Your task to perform on an android device: Open wifi settings Image 0: 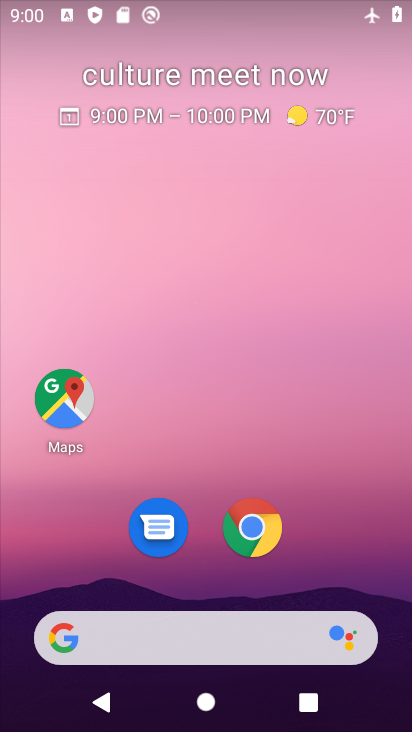
Step 0: drag from (209, 647) to (252, 333)
Your task to perform on an android device: Open wifi settings Image 1: 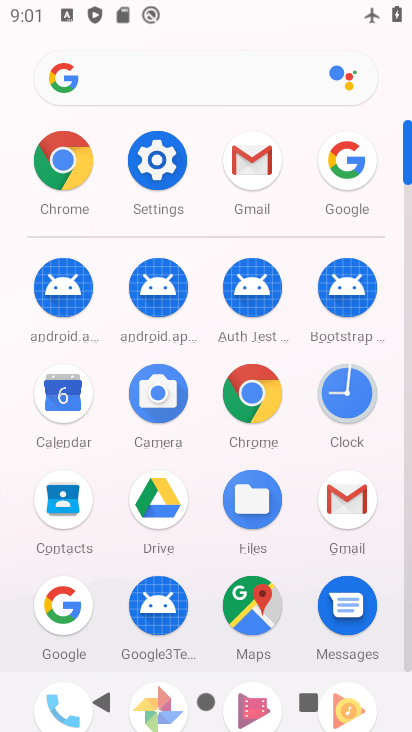
Step 1: click (163, 196)
Your task to perform on an android device: Open wifi settings Image 2: 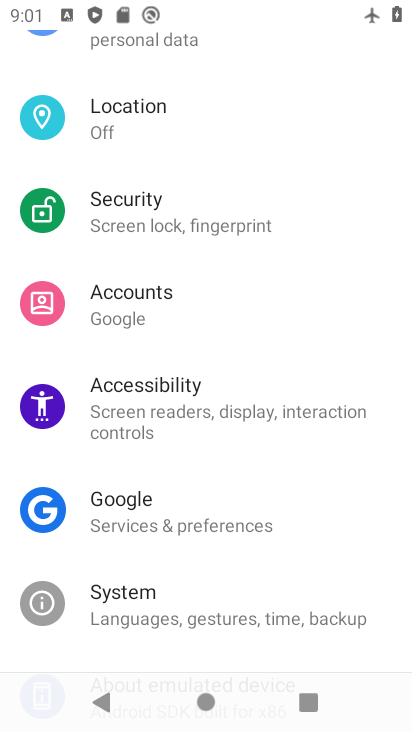
Step 2: drag from (168, 233) to (196, 622)
Your task to perform on an android device: Open wifi settings Image 3: 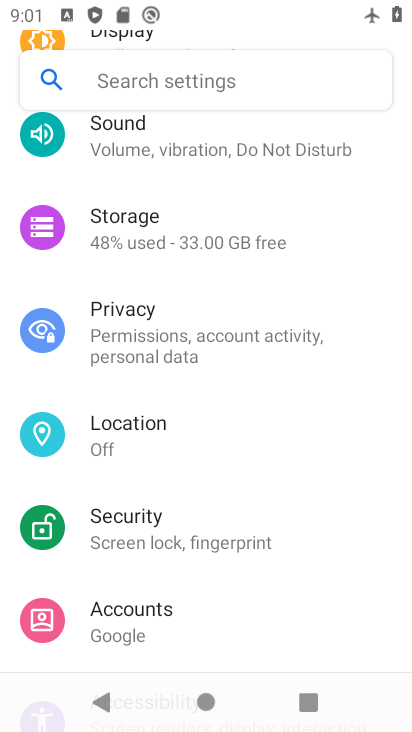
Step 3: drag from (163, 454) to (174, 671)
Your task to perform on an android device: Open wifi settings Image 4: 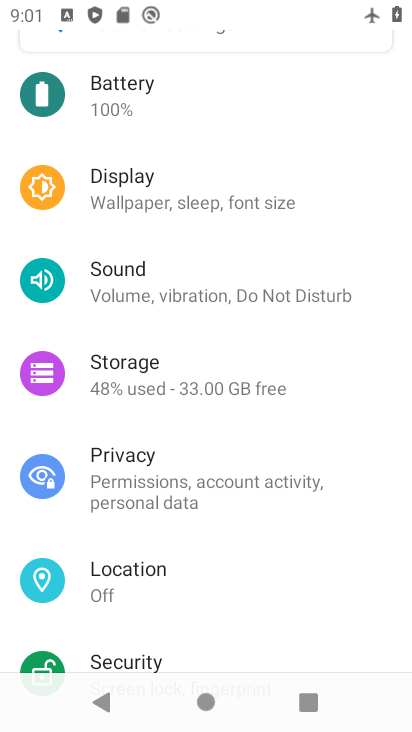
Step 4: drag from (200, 249) to (190, 565)
Your task to perform on an android device: Open wifi settings Image 5: 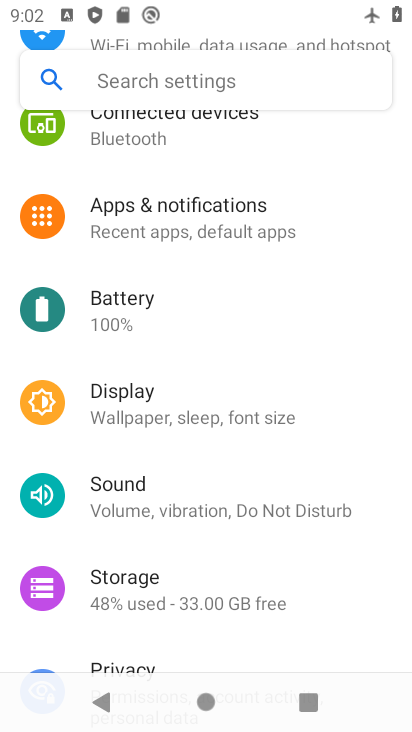
Step 5: drag from (196, 322) to (196, 493)
Your task to perform on an android device: Open wifi settings Image 6: 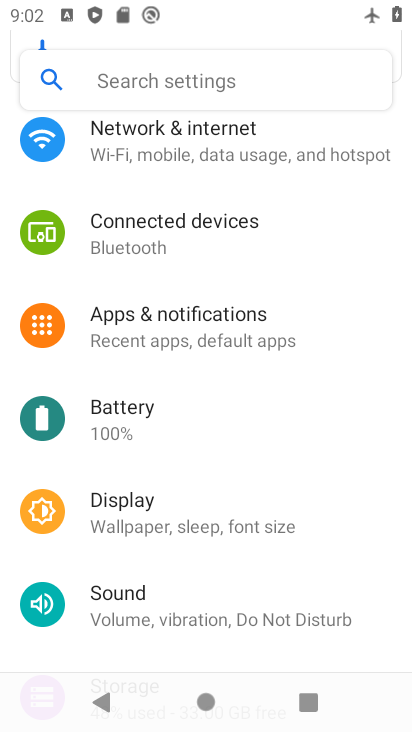
Step 6: drag from (215, 387) to (216, 541)
Your task to perform on an android device: Open wifi settings Image 7: 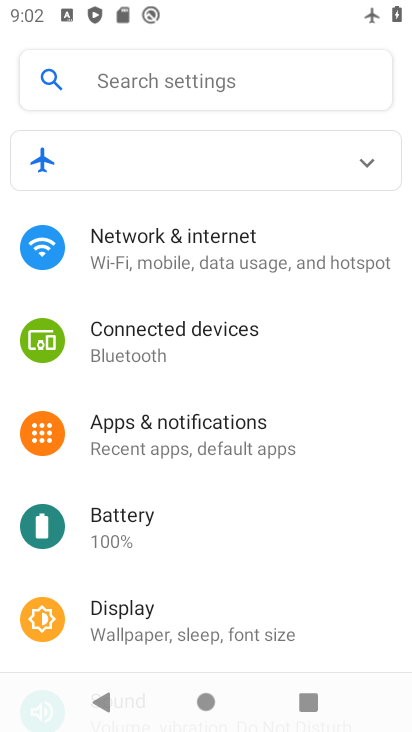
Step 7: click (242, 268)
Your task to perform on an android device: Open wifi settings Image 8: 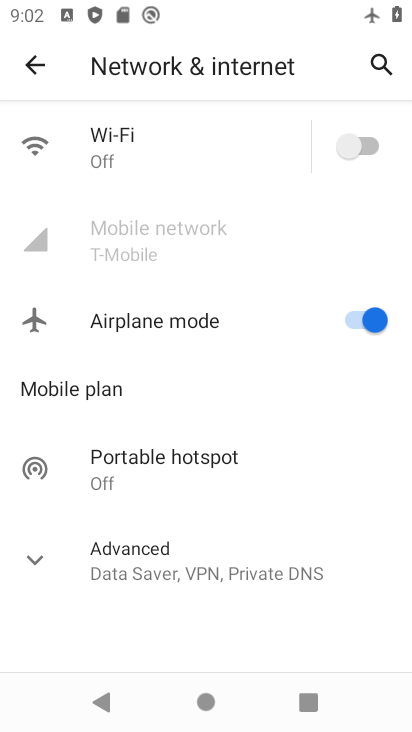
Step 8: click (255, 147)
Your task to perform on an android device: Open wifi settings Image 9: 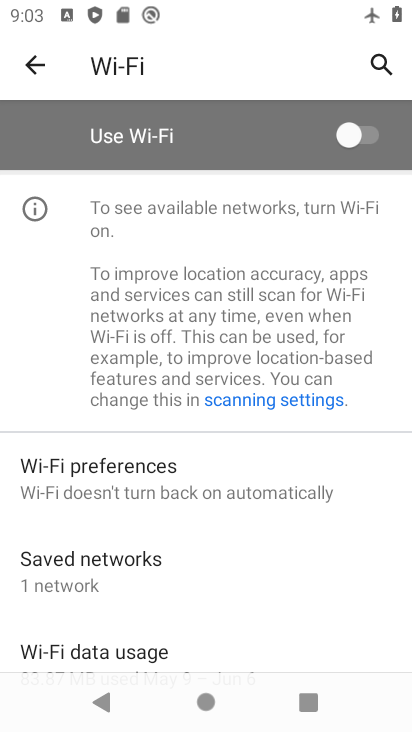
Step 9: task complete